Your task to perform on an android device: Search for the best rated headphones on Walmart Image 0: 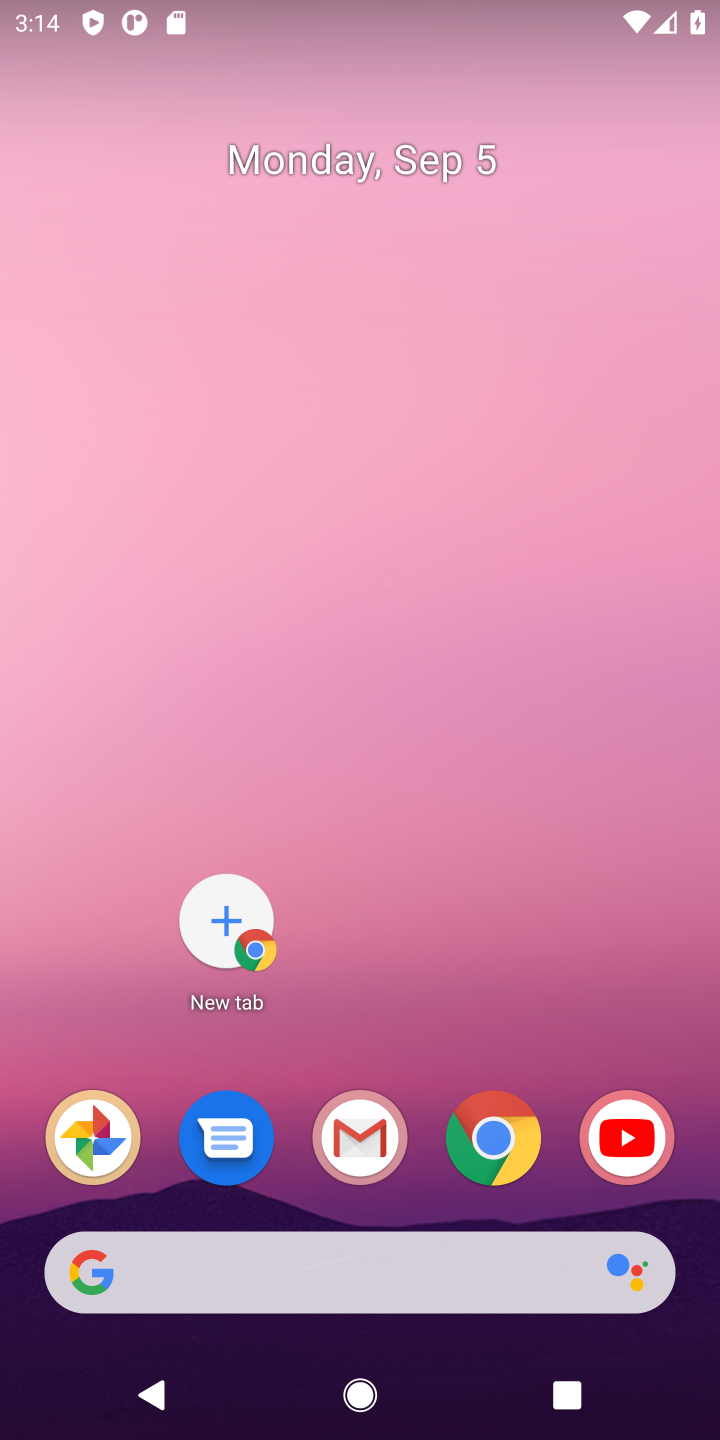
Step 0: click (509, 1148)
Your task to perform on an android device: Search for the best rated headphones on Walmart Image 1: 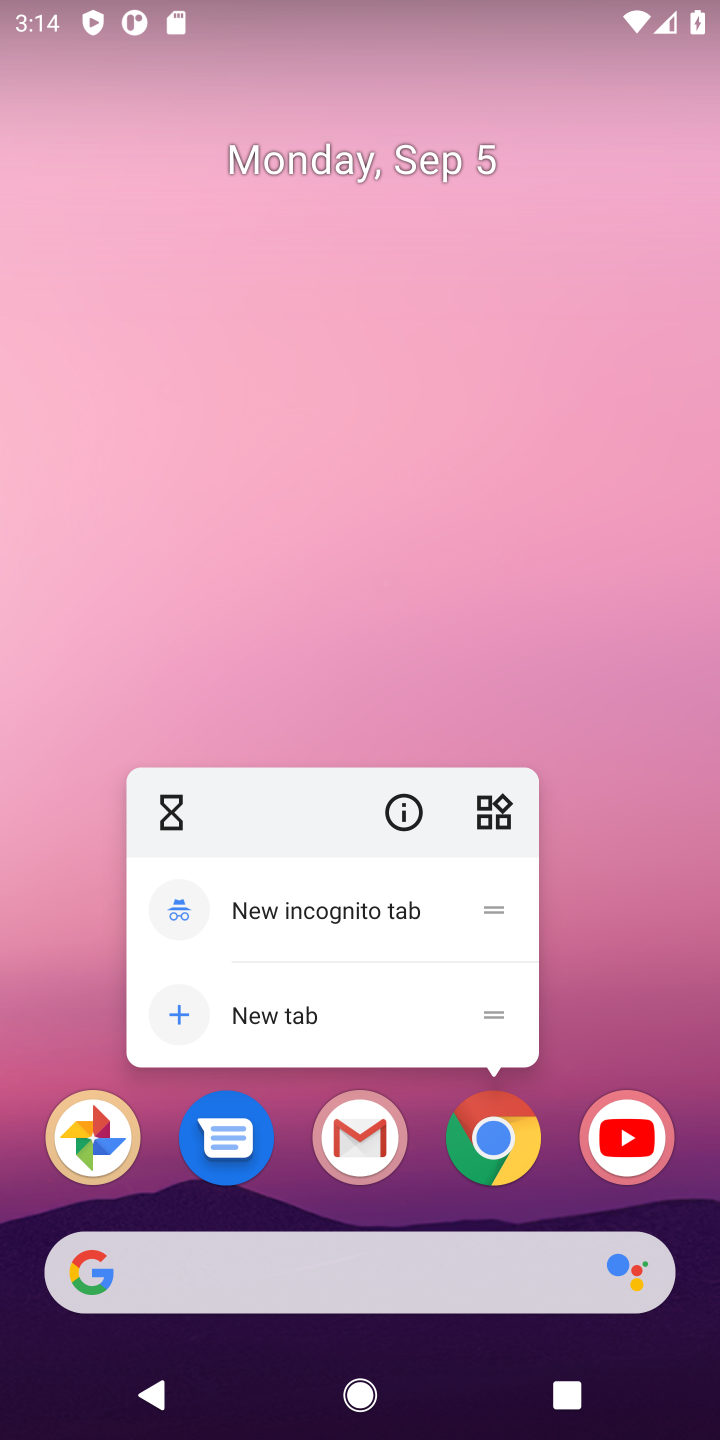
Step 1: click (484, 1150)
Your task to perform on an android device: Search for the best rated headphones on Walmart Image 2: 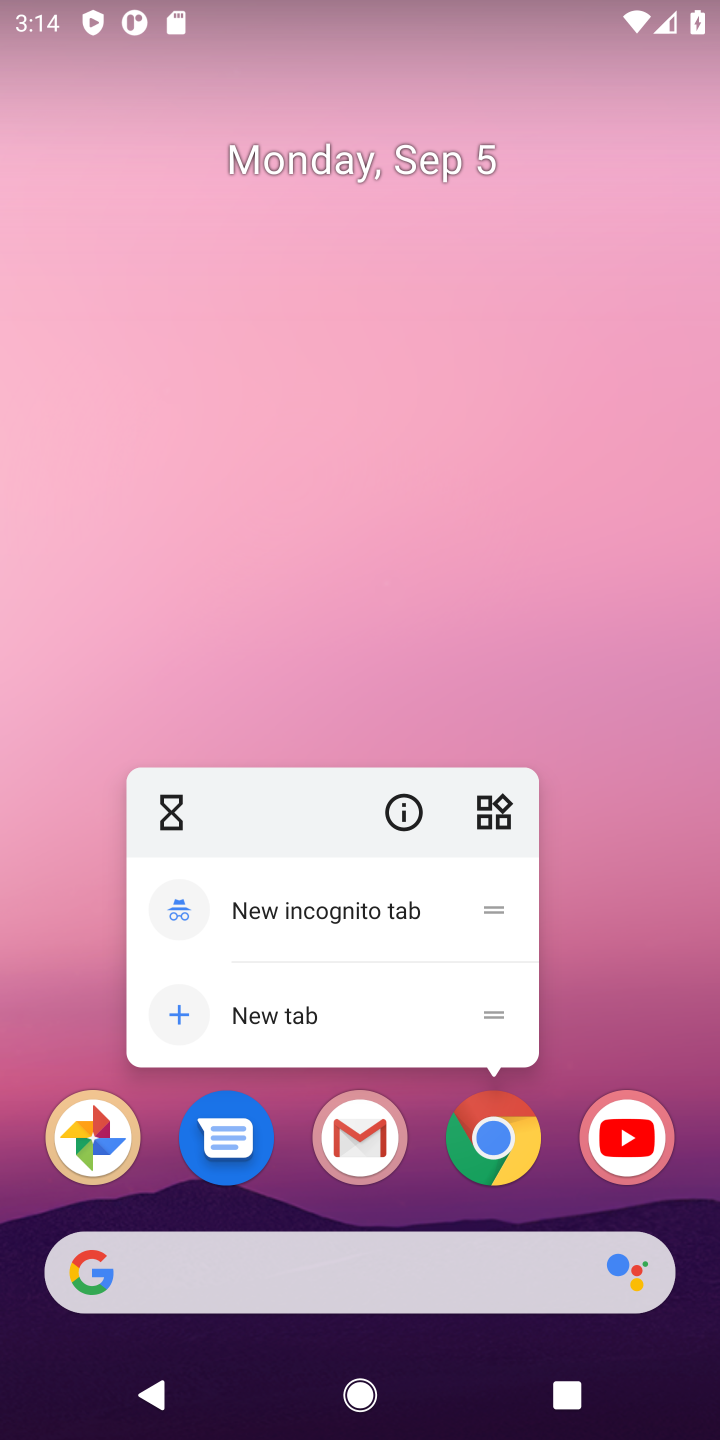
Step 2: click (514, 1169)
Your task to perform on an android device: Search for the best rated headphones on Walmart Image 3: 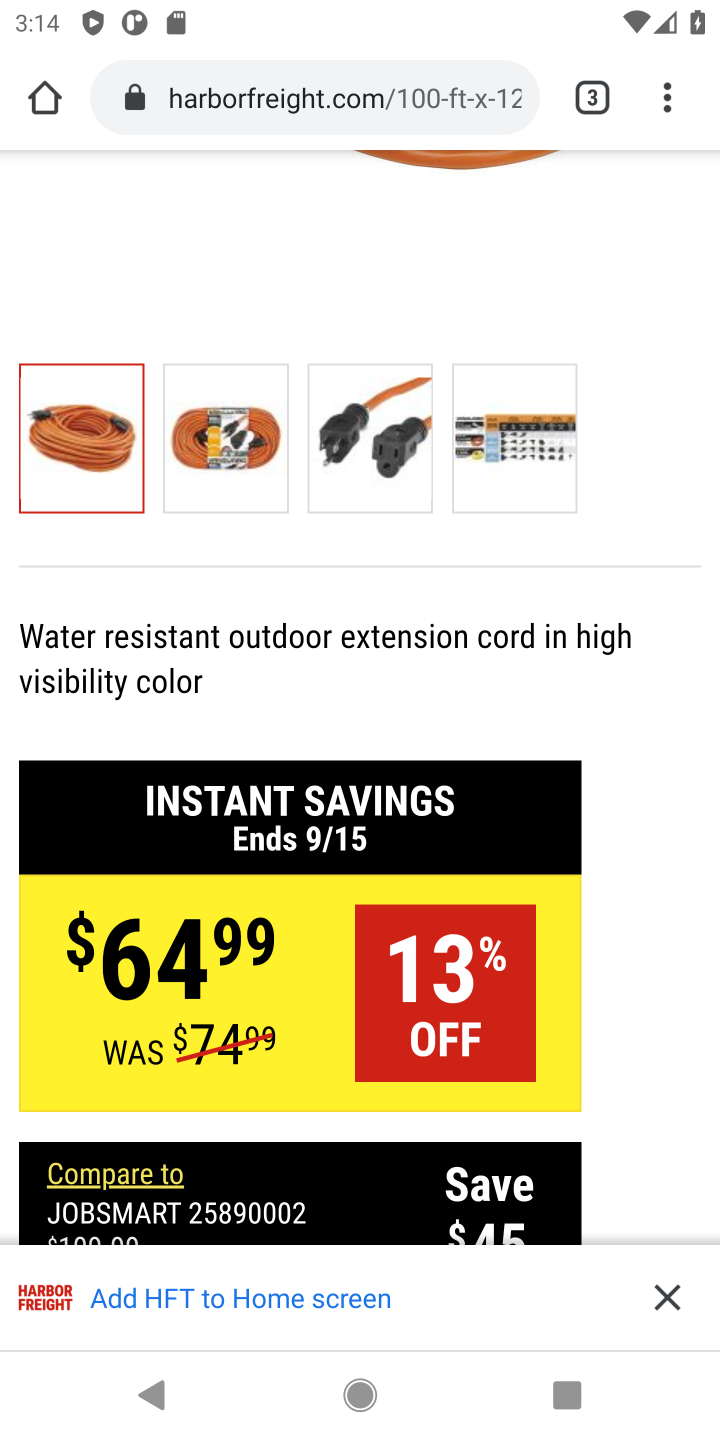
Step 3: click (191, 87)
Your task to perform on an android device: Search for the best rated headphones on Walmart Image 4: 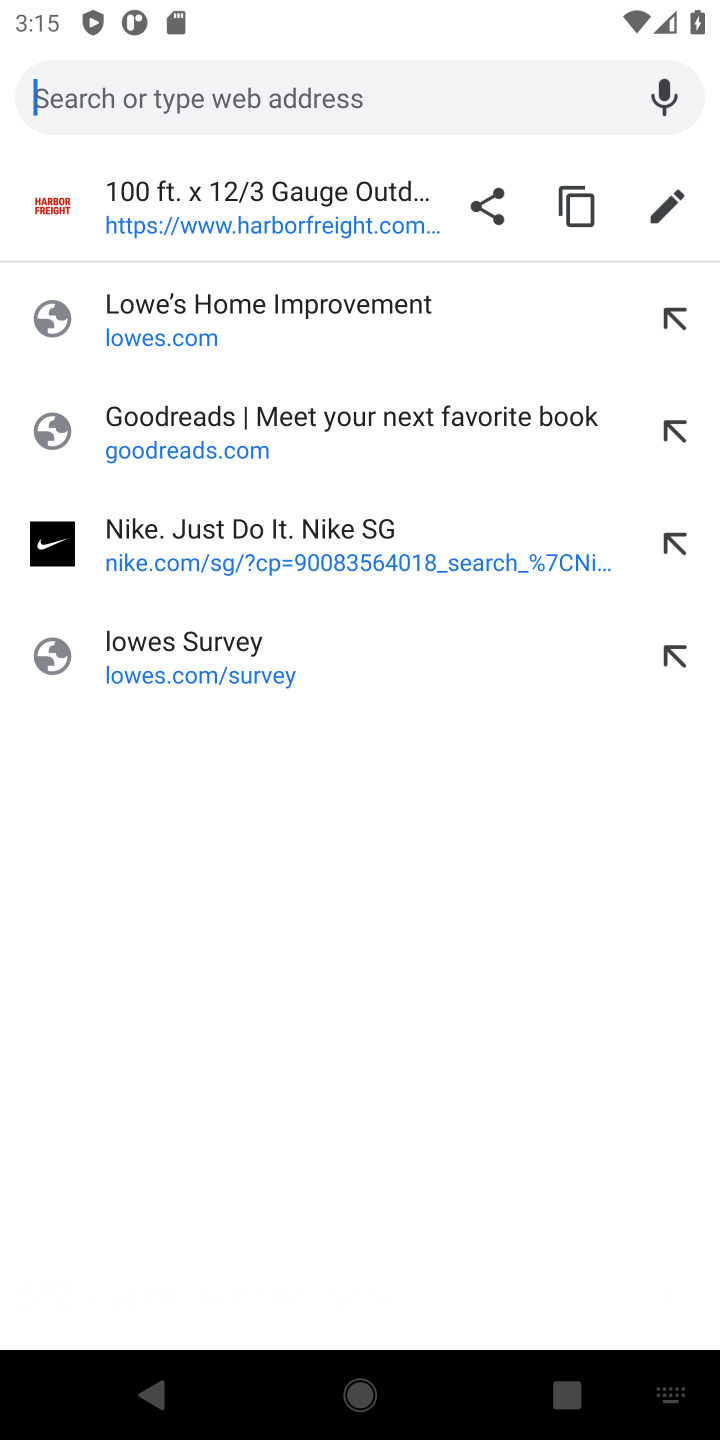
Step 4: type "walmart"
Your task to perform on an android device: Search for the best rated headphones on Walmart Image 5: 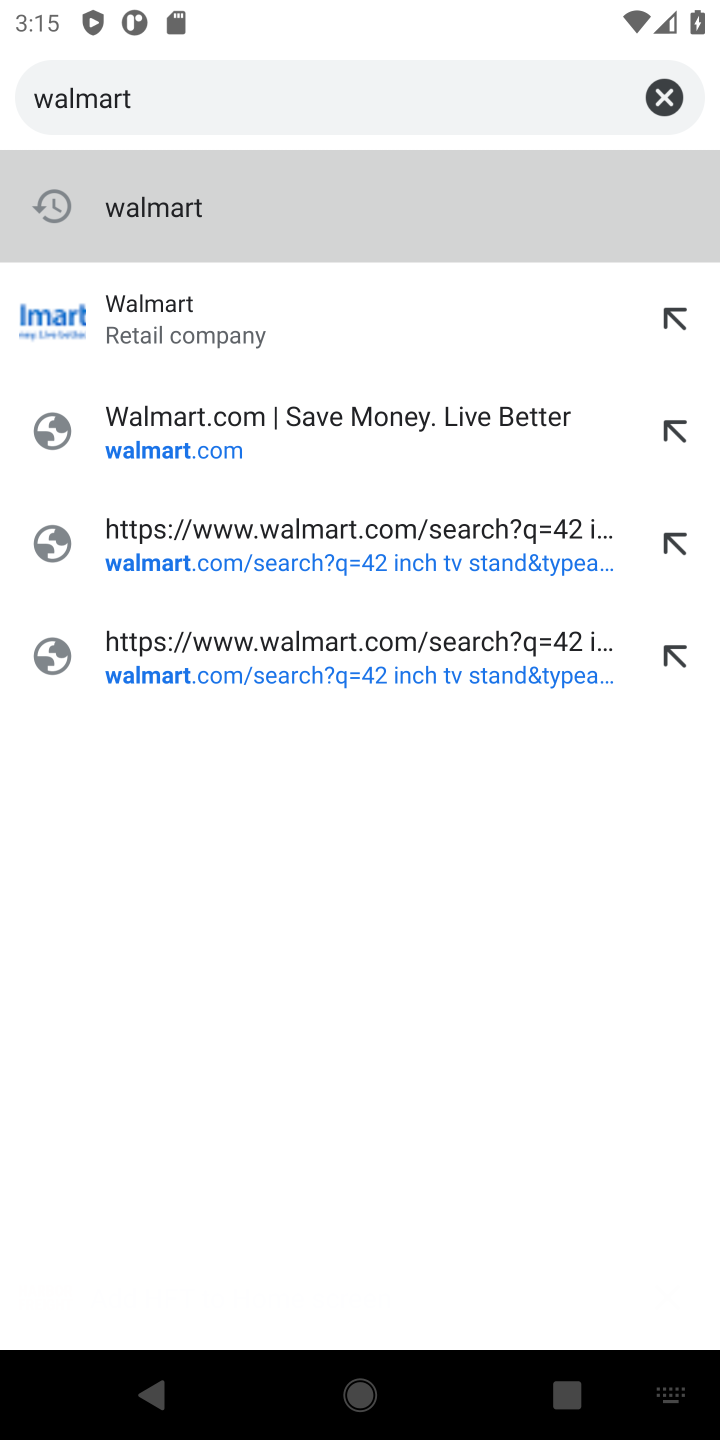
Step 5: click (147, 332)
Your task to perform on an android device: Search for the best rated headphones on Walmart Image 6: 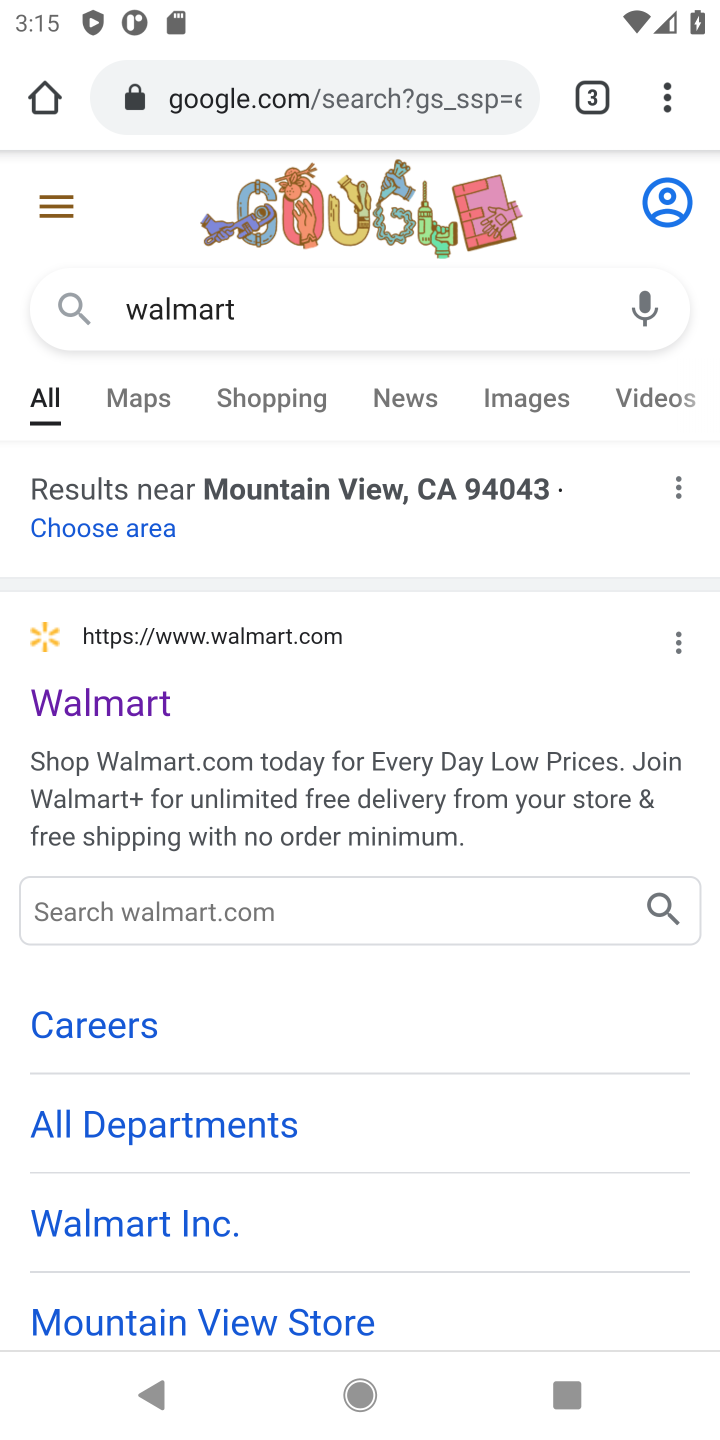
Step 6: click (78, 714)
Your task to perform on an android device: Search for the best rated headphones on Walmart Image 7: 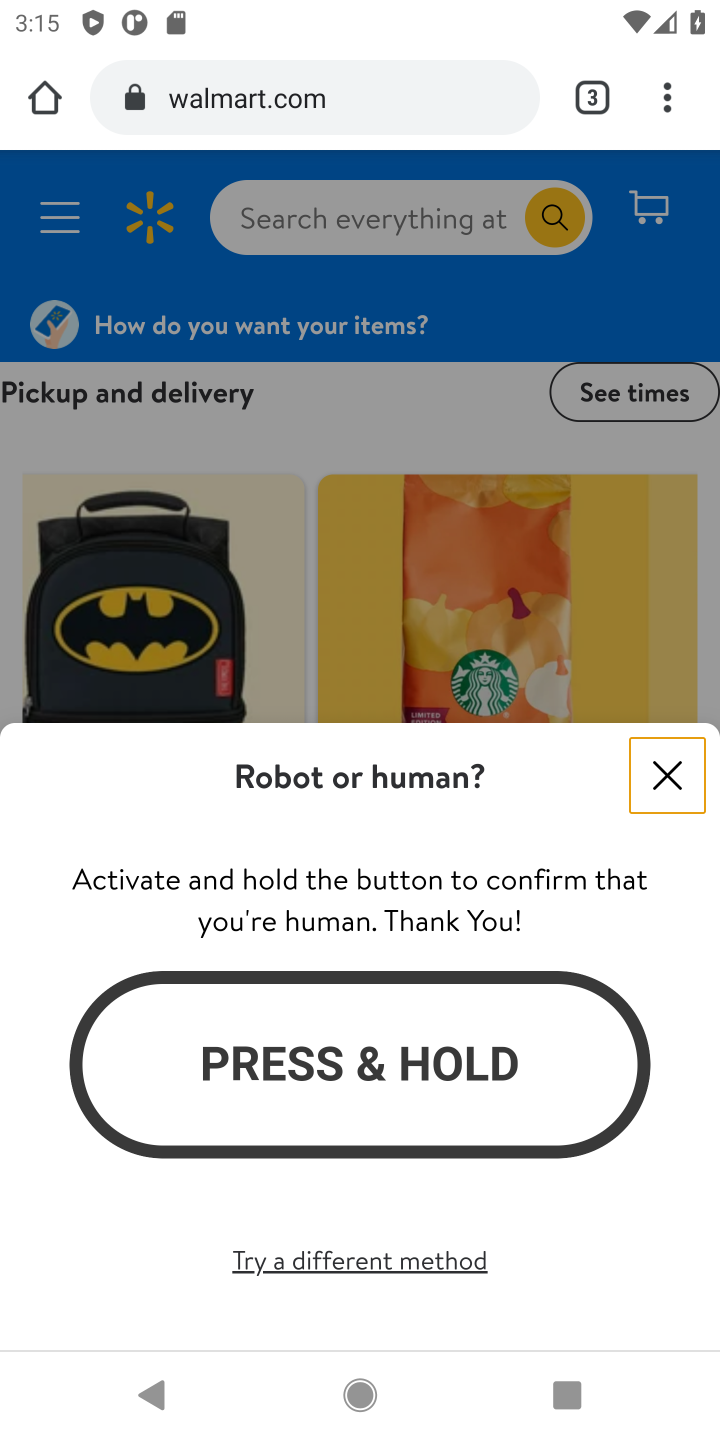
Step 7: click (664, 780)
Your task to perform on an android device: Search for the best rated headphones on Walmart Image 8: 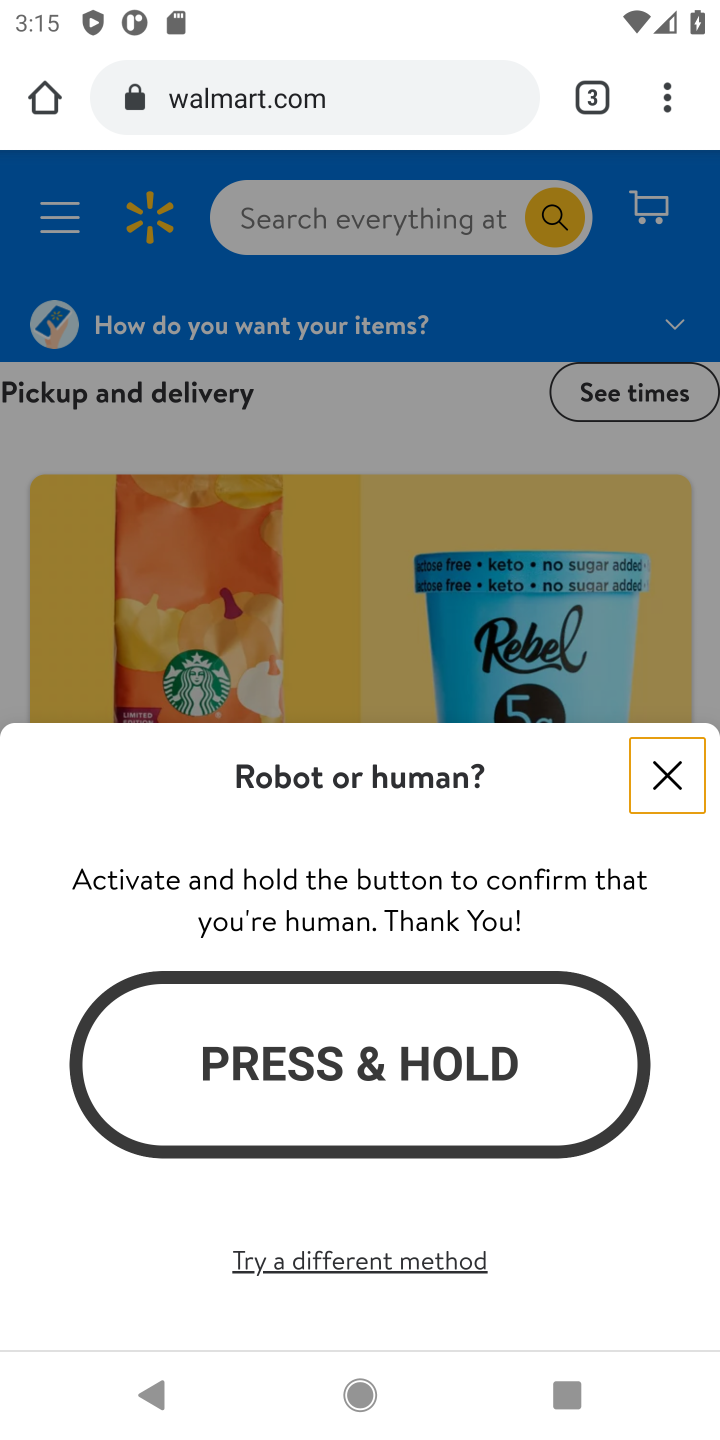
Step 8: click (366, 214)
Your task to perform on an android device: Search for the best rated headphones on Walmart Image 9: 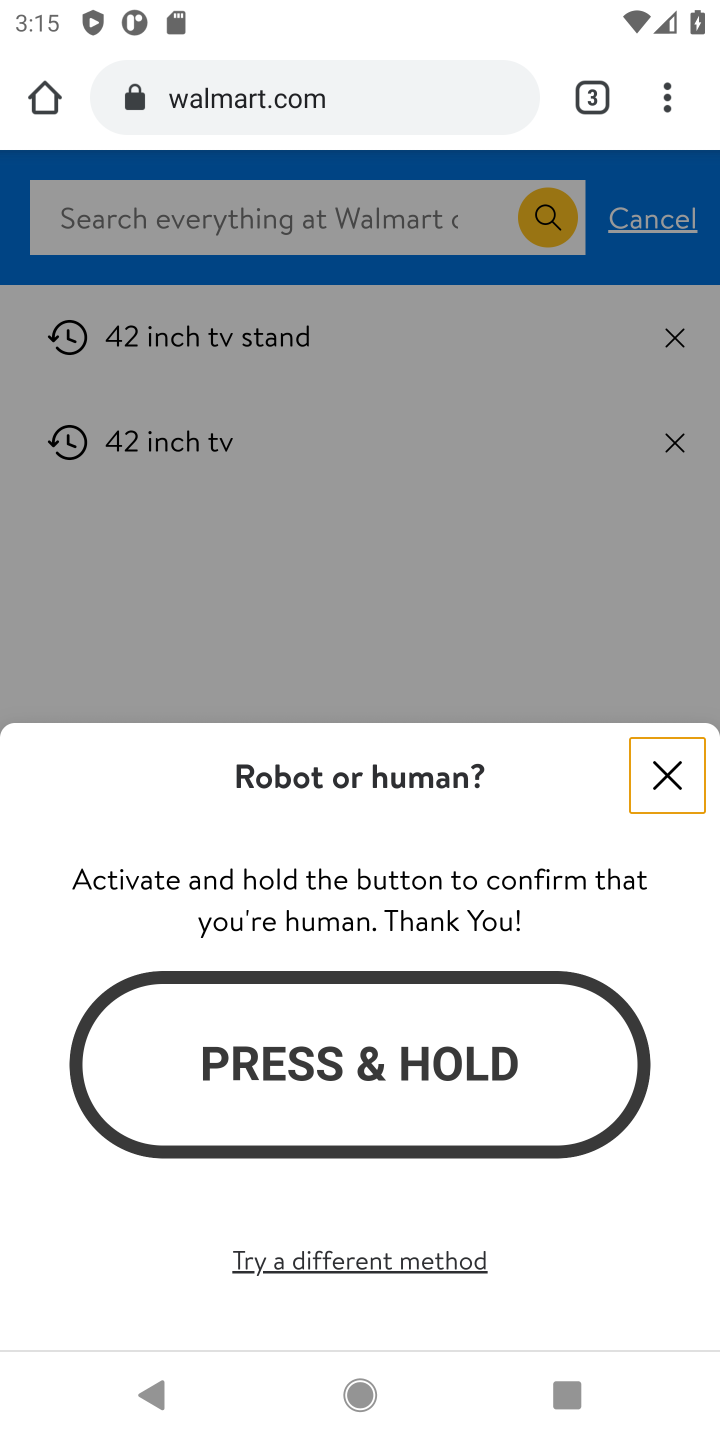
Step 9: type "headphones"
Your task to perform on an android device: Search for the best rated headphones on Walmart Image 10: 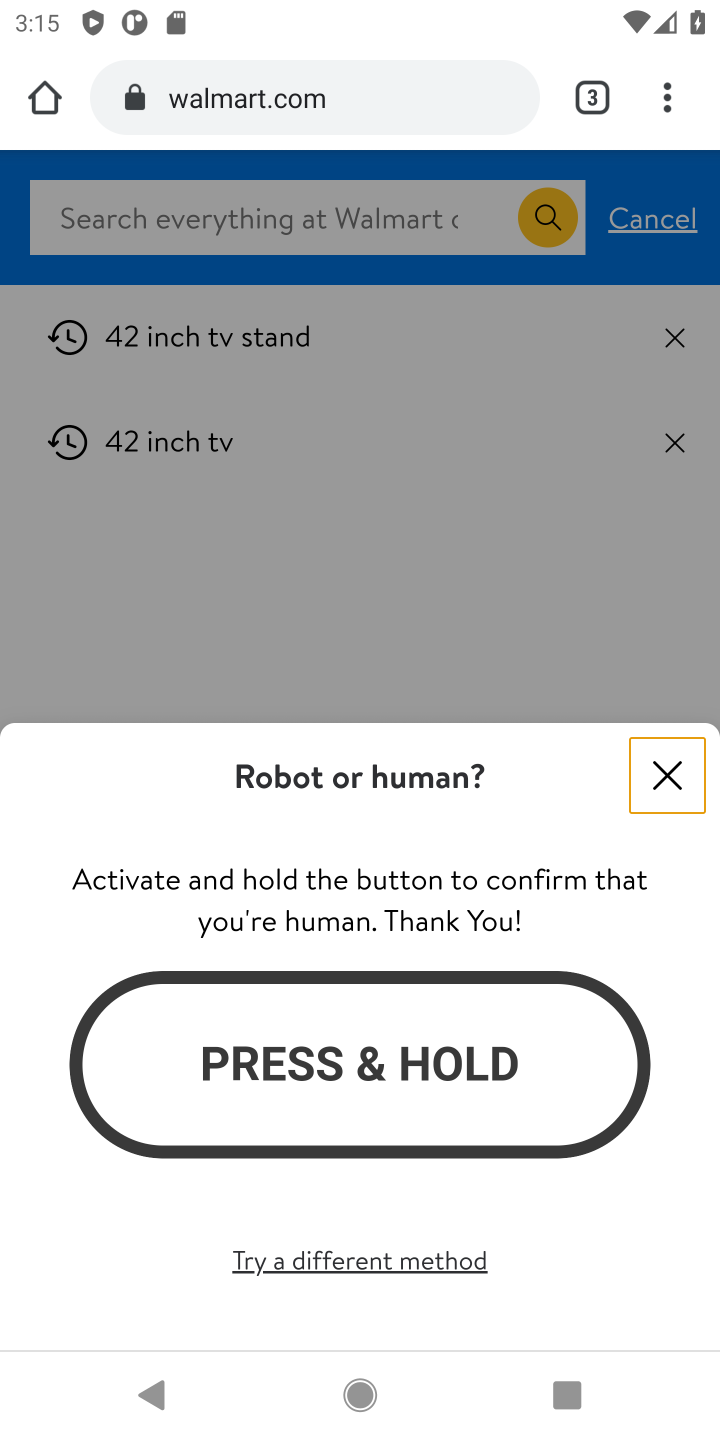
Step 10: type ""
Your task to perform on an android device: Search for the best rated headphones on Walmart Image 11: 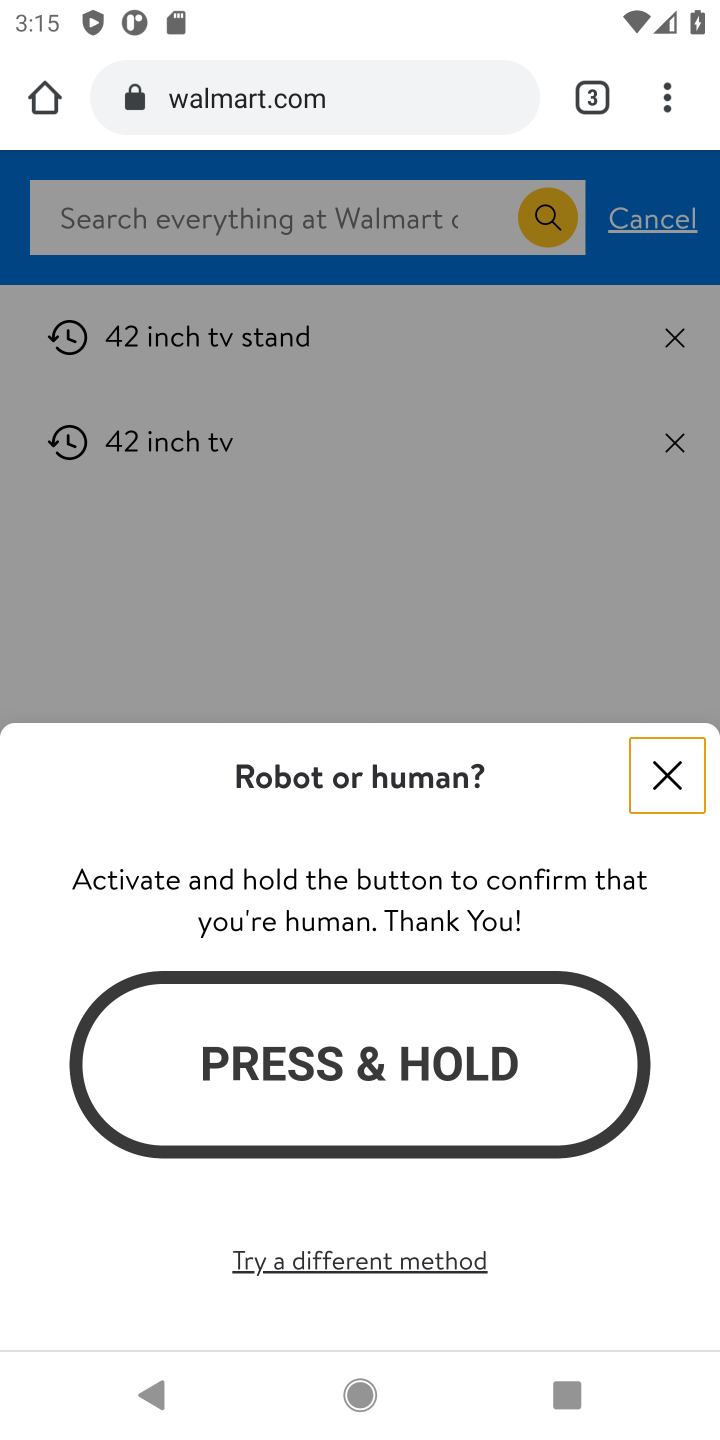
Step 11: type ""
Your task to perform on an android device: Search for the best rated headphones on Walmart Image 12: 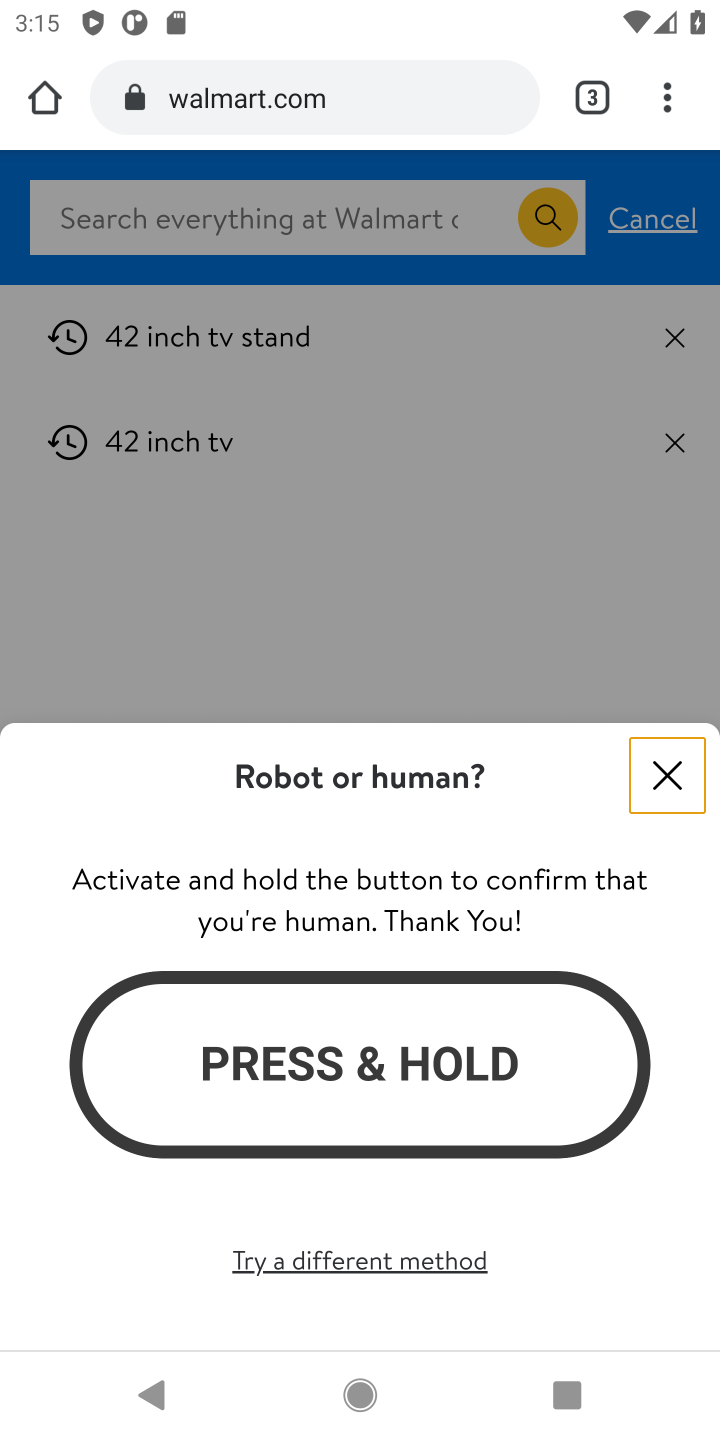
Step 12: click (161, 223)
Your task to perform on an android device: Search for the best rated headphones on Walmart Image 13: 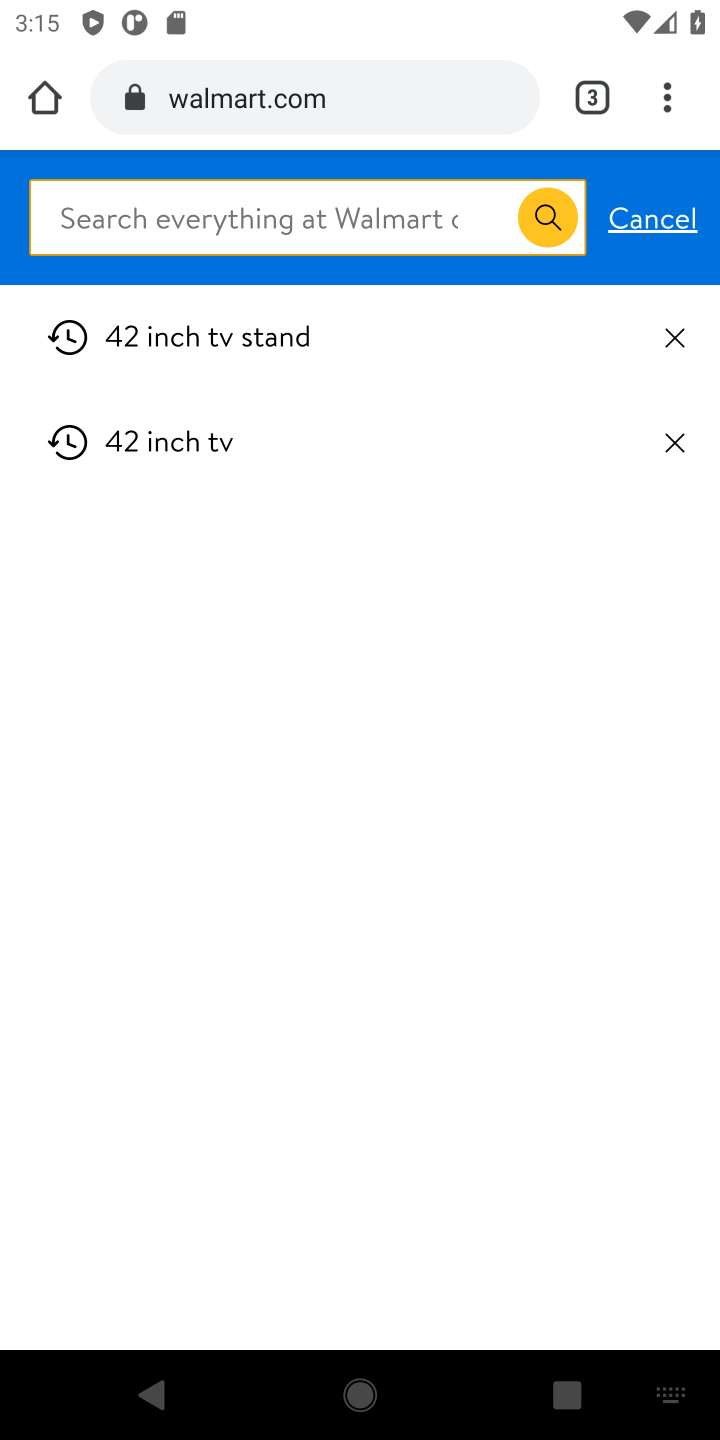
Step 13: type "headphone"
Your task to perform on an android device: Search for the best rated headphones on Walmart Image 14: 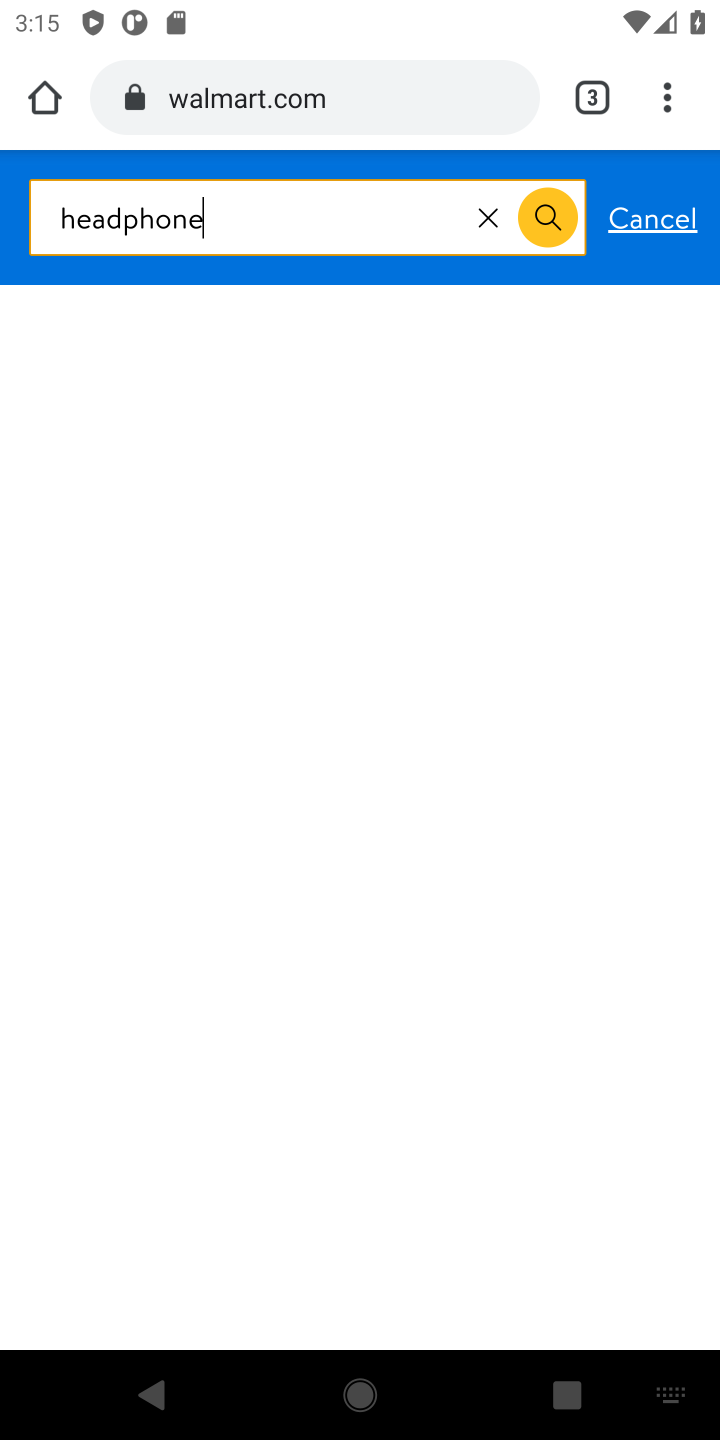
Step 14: type ""
Your task to perform on an android device: Search for the best rated headphones on Walmart Image 15: 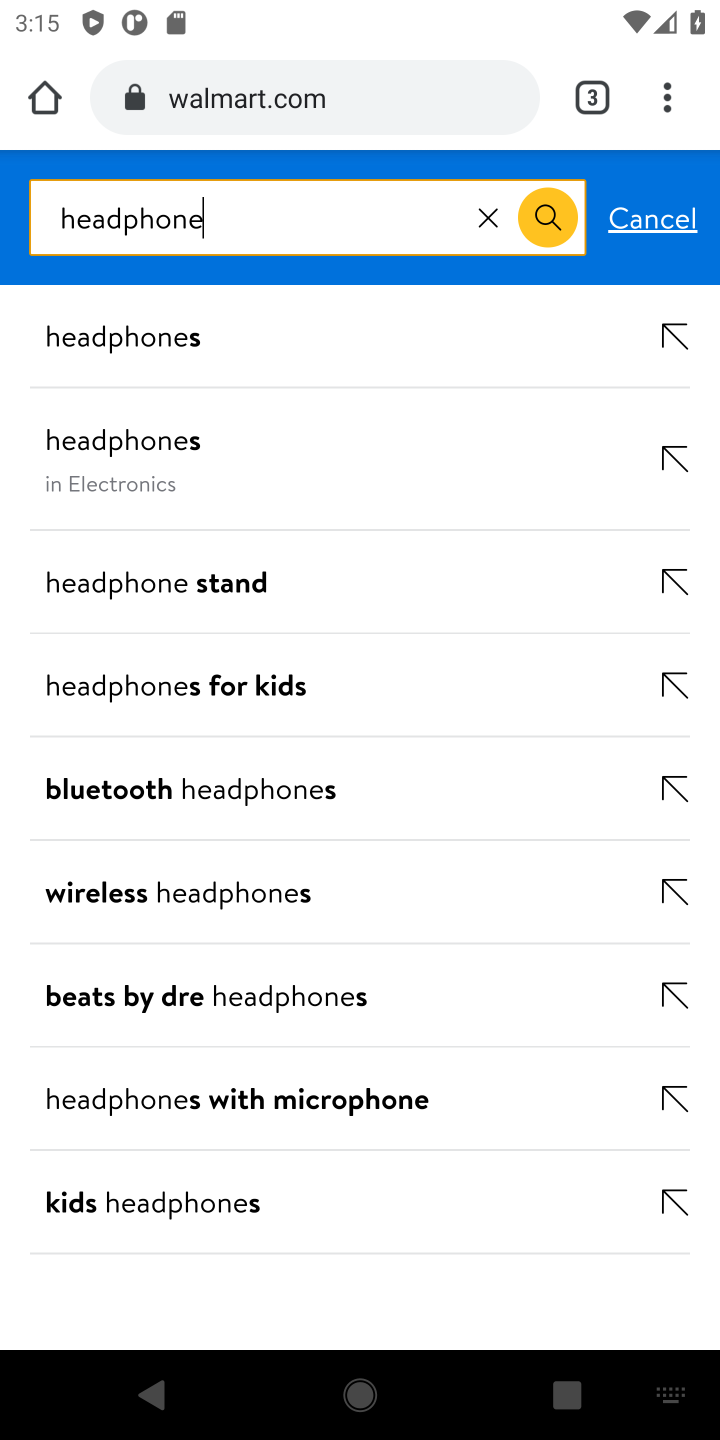
Step 15: click (61, 333)
Your task to perform on an android device: Search for the best rated headphones on Walmart Image 16: 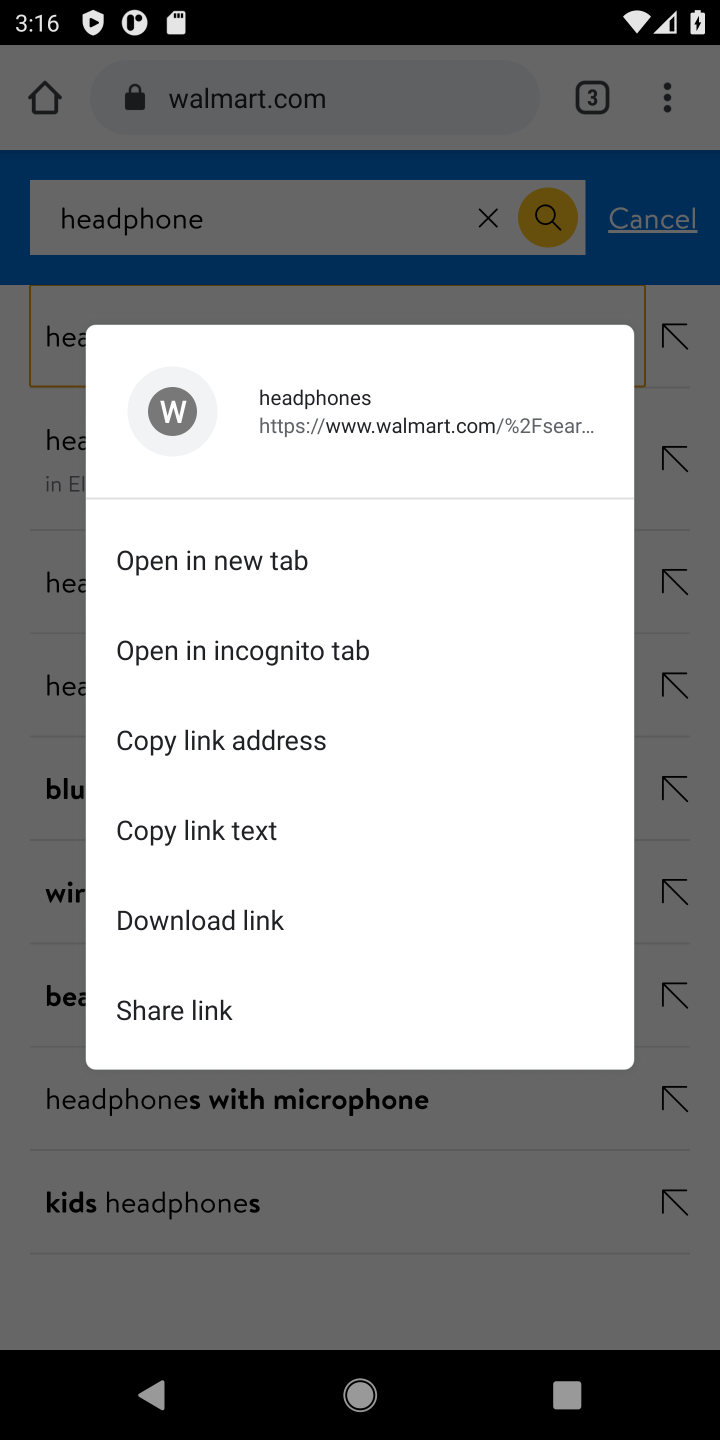
Step 16: click (660, 705)
Your task to perform on an android device: Search for the best rated headphones on Walmart Image 17: 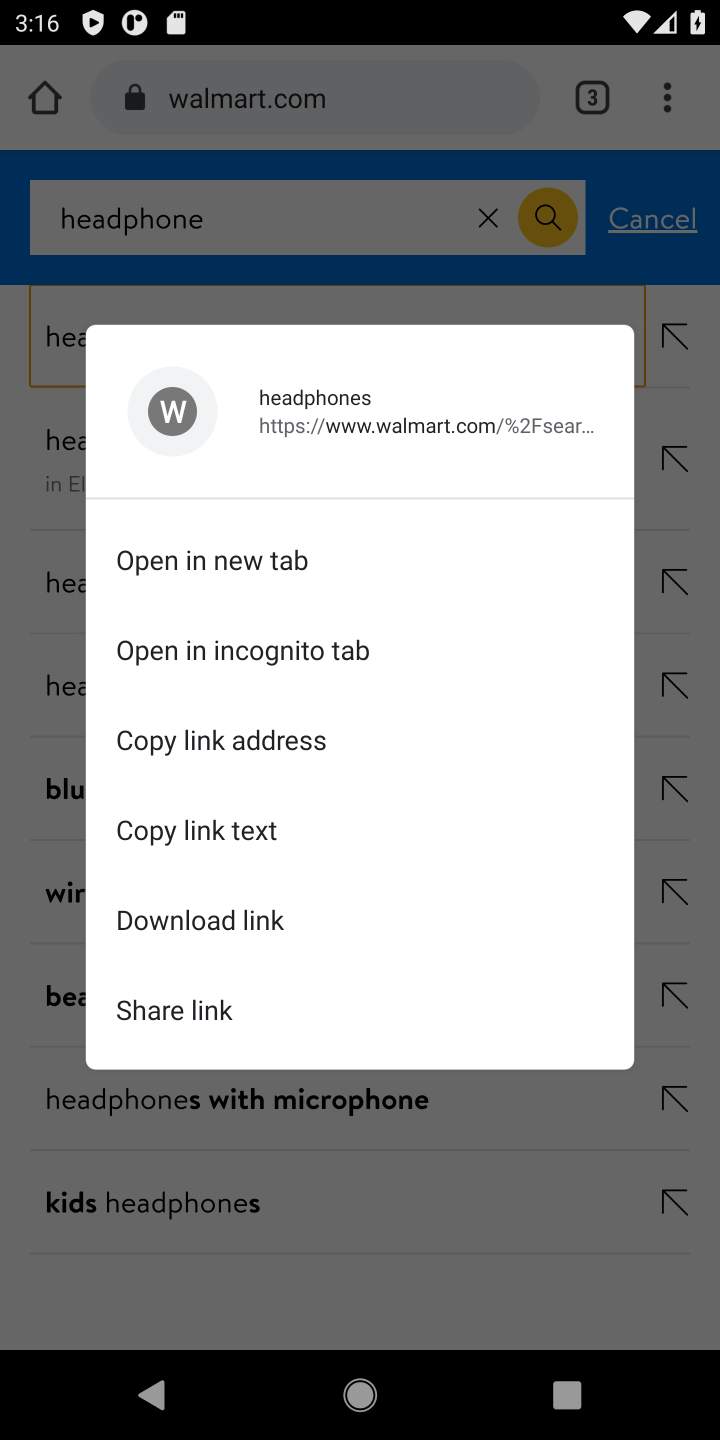
Step 17: click (62, 445)
Your task to perform on an android device: Search for the best rated headphones on Walmart Image 18: 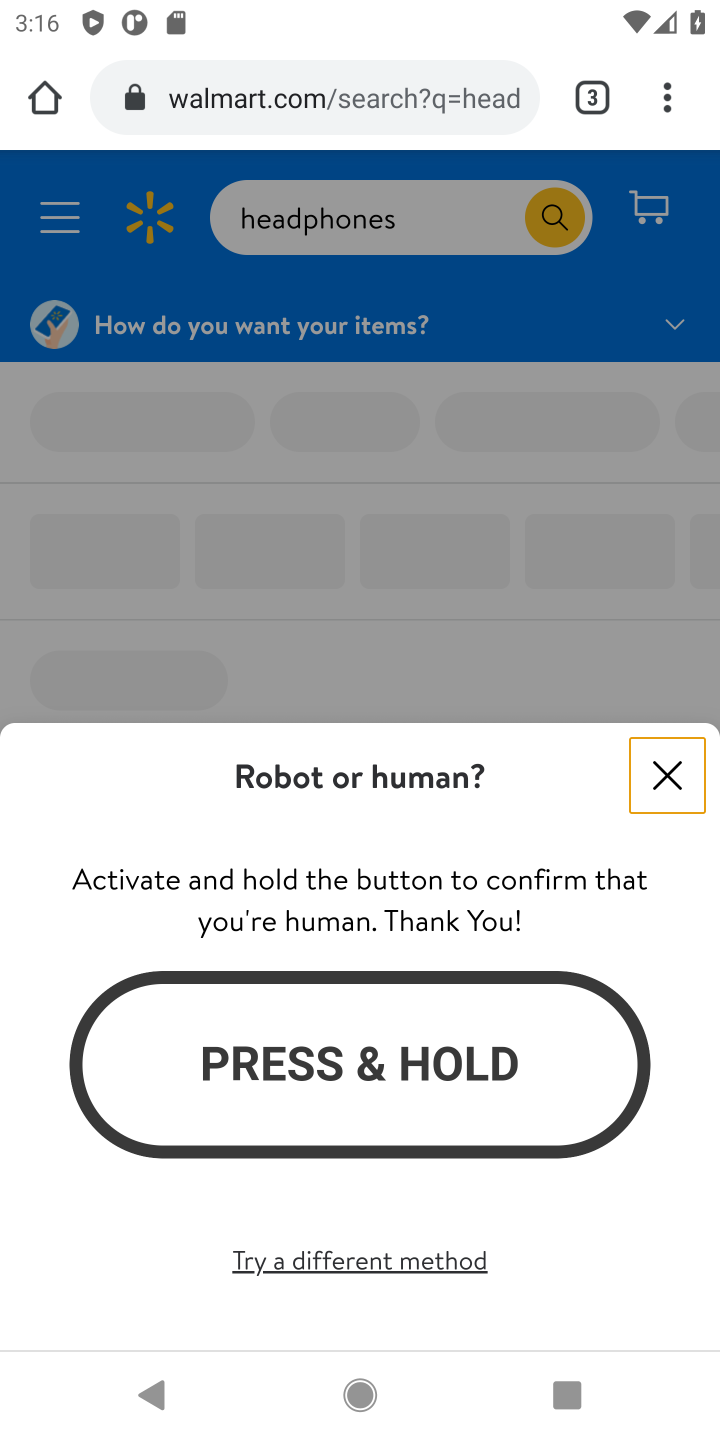
Step 18: click (667, 820)
Your task to perform on an android device: Search for the best rated headphones on Walmart Image 19: 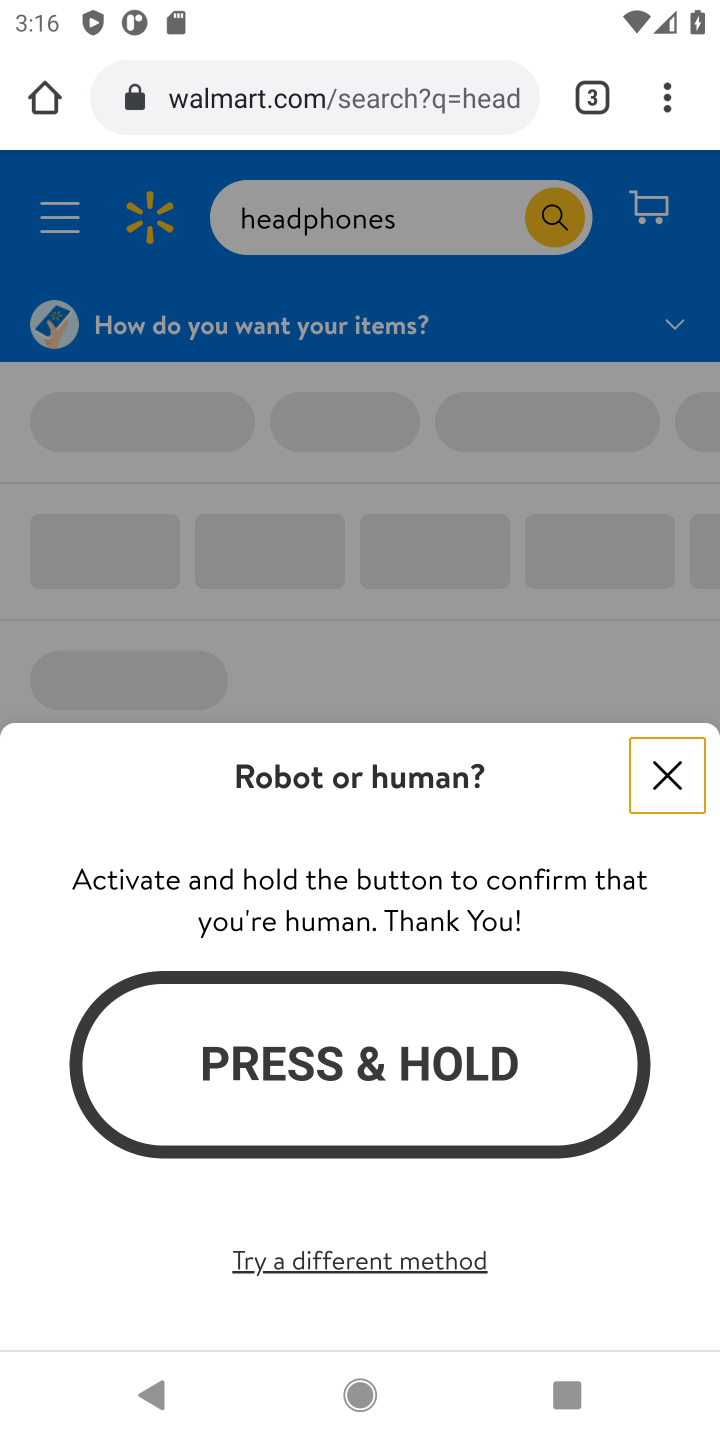
Step 19: click (650, 772)
Your task to perform on an android device: Search for the best rated headphones on Walmart Image 20: 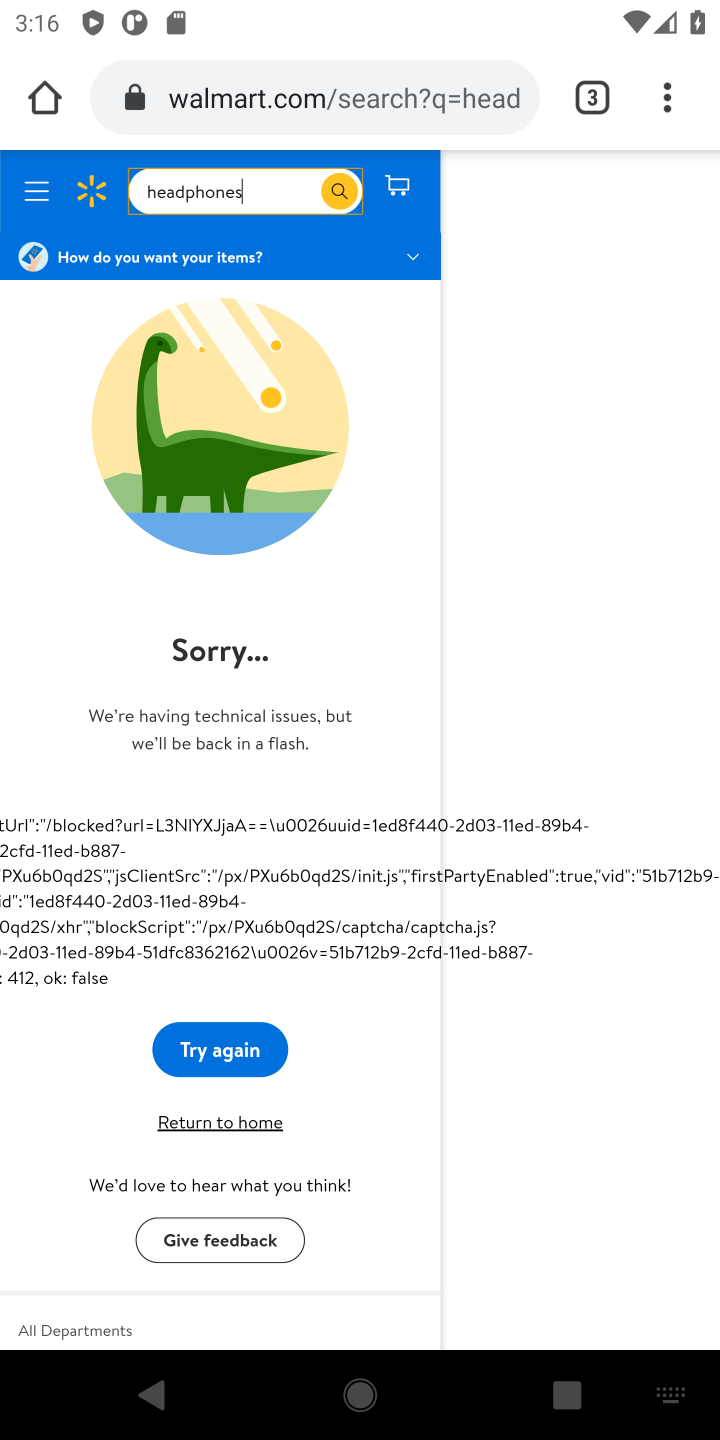
Step 20: task complete